Your task to perform on an android device: Open the stopwatch Image 0: 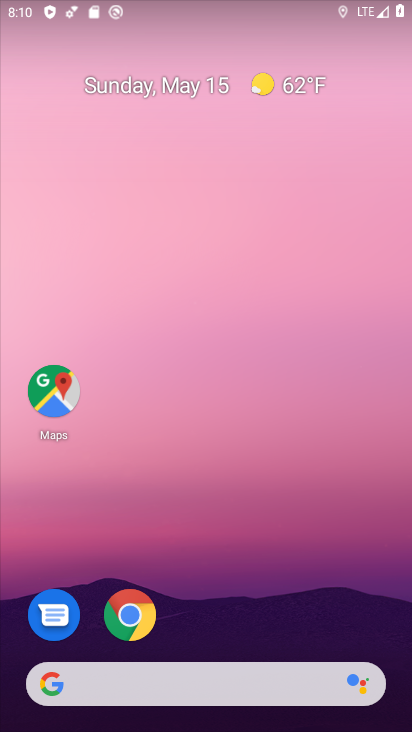
Step 0: drag from (218, 531) to (283, 18)
Your task to perform on an android device: Open the stopwatch Image 1: 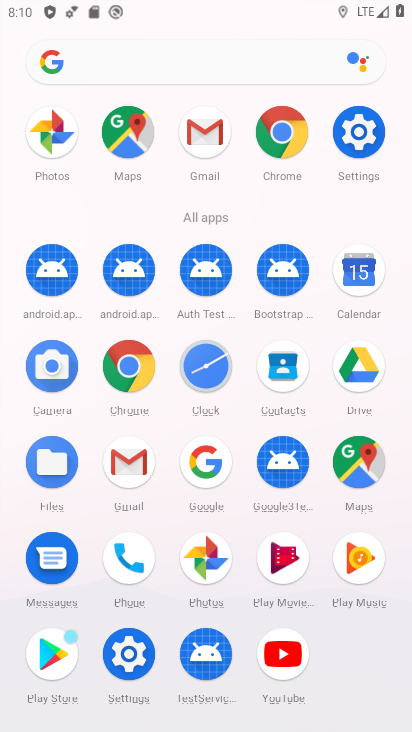
Step 1: click (224, 394)
Your task to perform on an android device: Open the stopwatch Image 2: 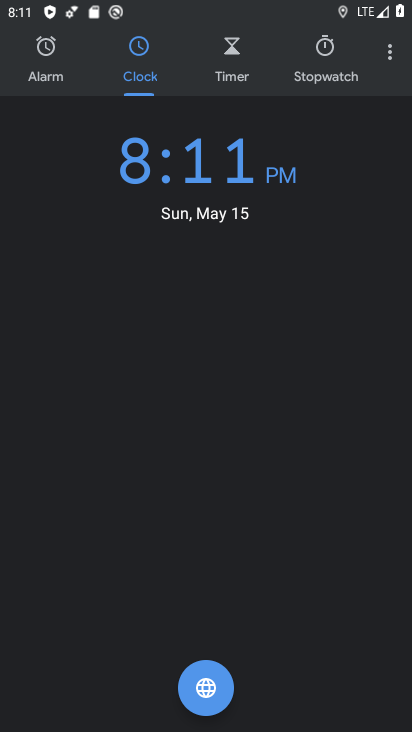
Step 2: click (325, 71)
Your task to perform on an android device: Open the stopwatch Image 3: 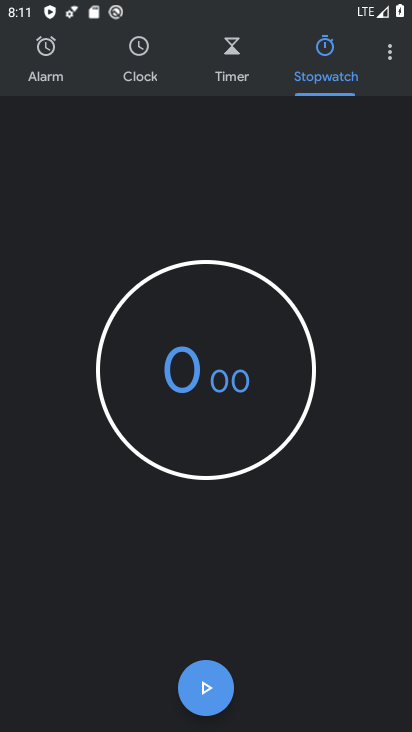
Step 3: task complete